Your task to perform on an android device: visit the assistant section in the google photos Image 0: 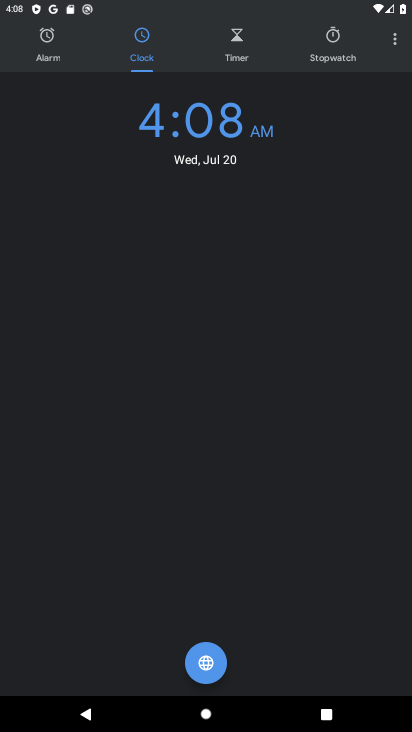
Step 0: press home button
Your task to perform on an android device: visit the assistant section in the google photos Image 1: 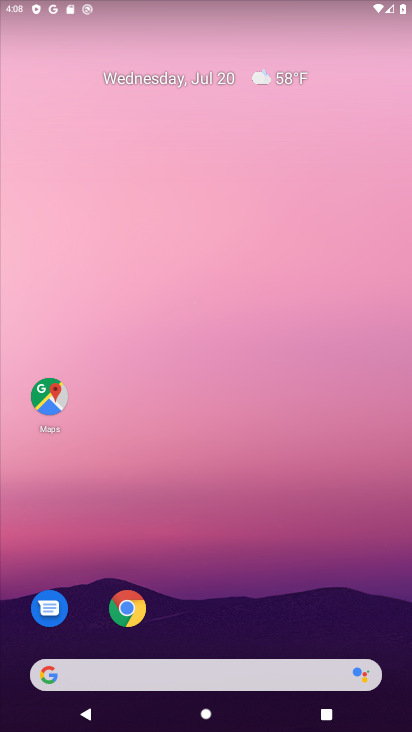
Step 1: drag from (235, 618) to (240, 158)
Your task to perform on an android device: visit the assistant section in the google photos Image 2: 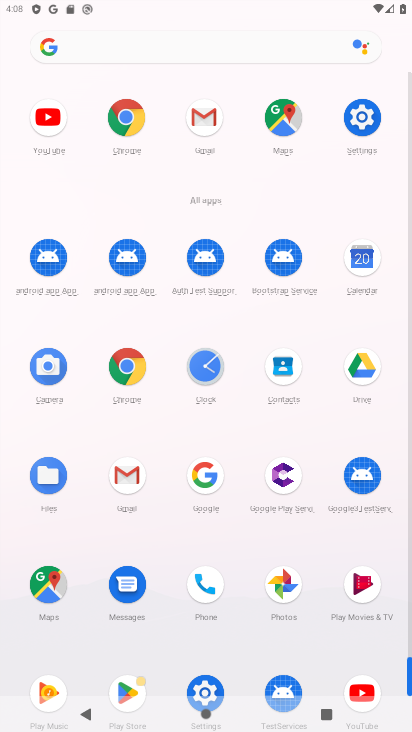
Step 2: click (274, 596)
Your task to perform on an android device: visit the assistant section in the google photos Image 3: 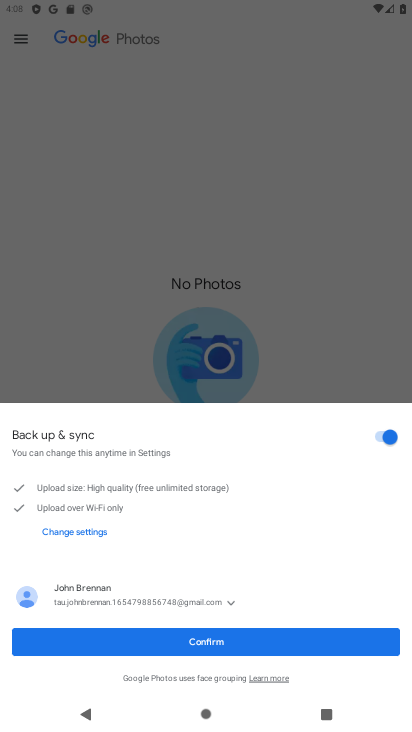
Step 3: click (208, 638)
Your task to perform on an android device: visit the assistant section in the google photos Image 4: 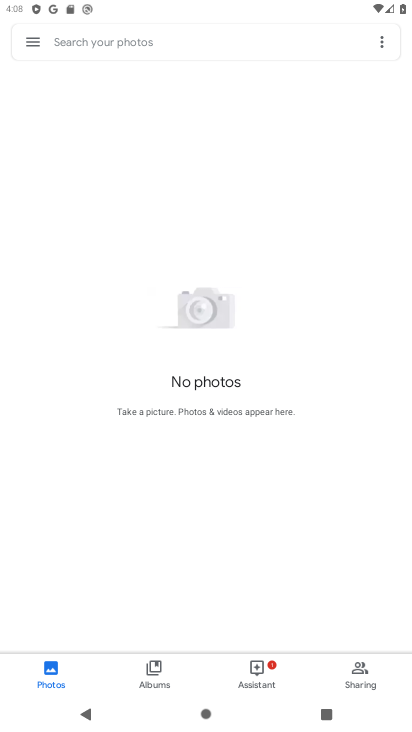
Step 4: click (256, 677)
Your task to perform on an android device: visit the assistant section in the google photos Image 5: 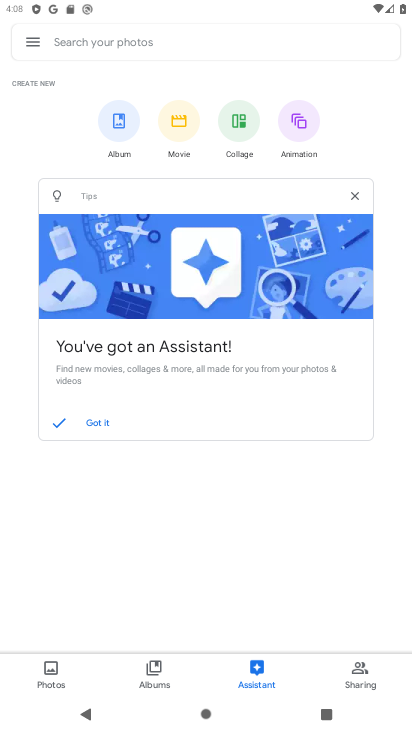
Step 5: task complete